Your task to perform on an android device: Turn on the flashlight Image 0: 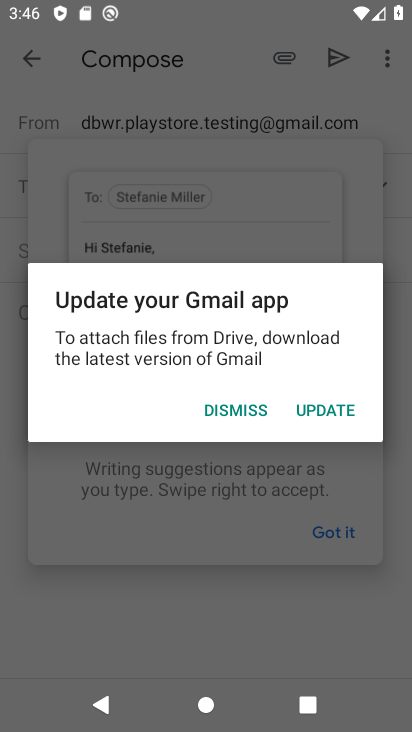
Step 0: press home button
Your task to perform on an android device: Turn on the flashlight Image 1: 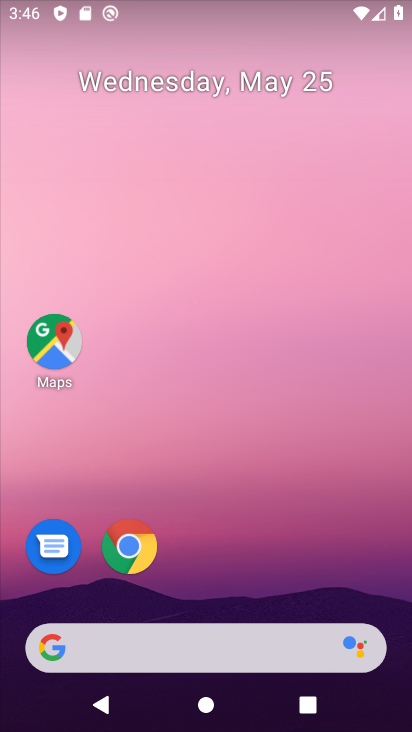
Step 1: drag from (227, 571) to (197, 57)
Your task to perform on an android device: Turn on the flashlight Image 2: 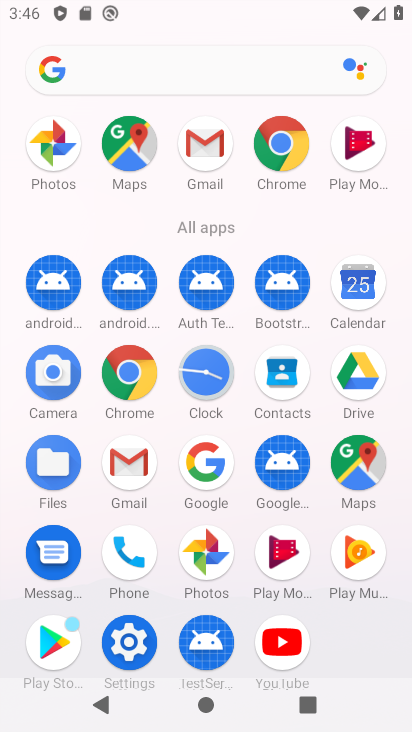
Step 2: click (130, 635)
Your task to perform on an android device: Turn on the flashlight Image 3: 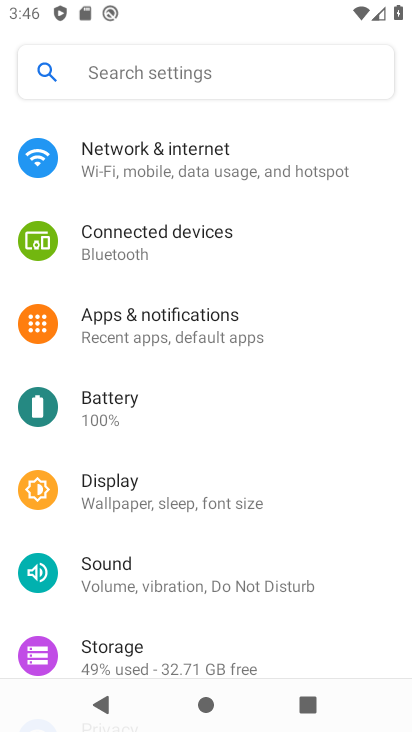
Step 3: task complete